Your task to perform on an android device: Open calendar and show me the second week of next month Image 0: 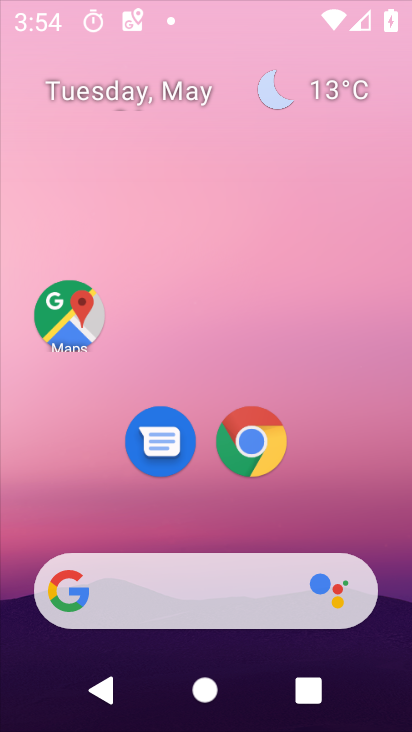
Step 0: press home button
Your task to perform on an android device: Open calendar and show me the second week of next month Image 1: 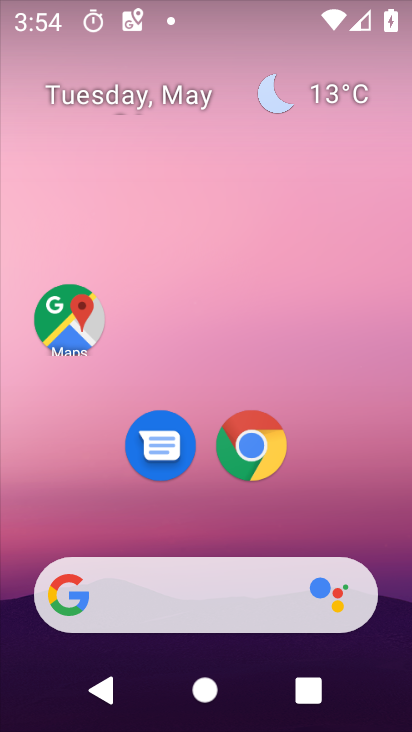
Step 1: click (341, 91)
Your task to perform on an android device: Open calendar and show me the second week of next month Image 2: 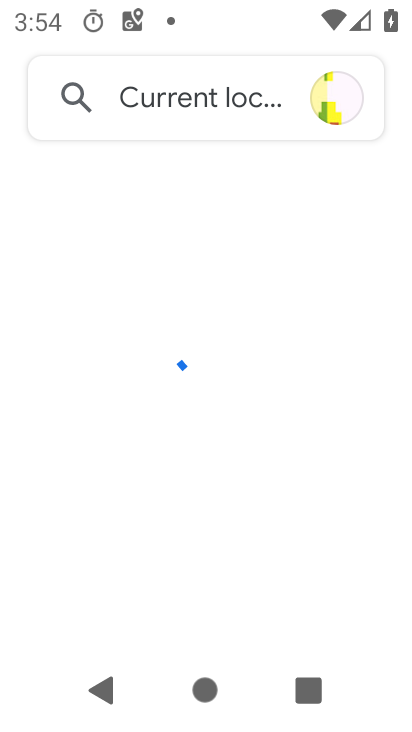
Step 2: press home button
Your task to perform on an android device: Open calendar and show me the second week of next month Image 3: 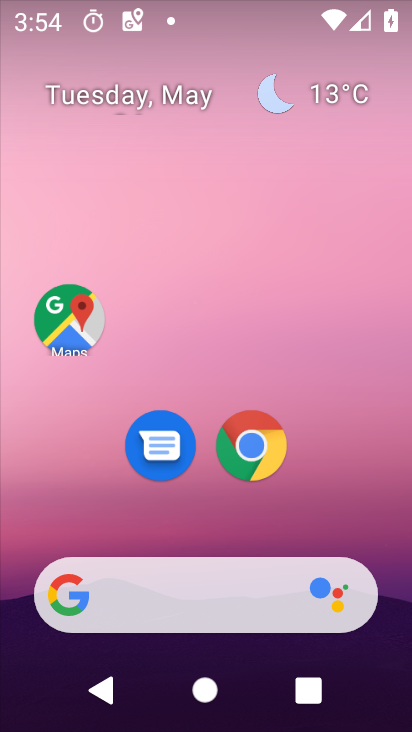
Step 3: drag from (212, 528) to (257, 80)
Your task to perform on an android device: Open calendar and show me the second week of next month Image 4: 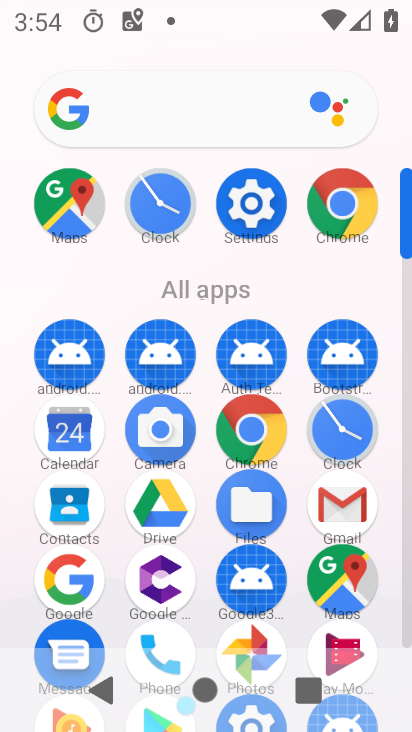
Step 4: click (65, 435)
Your task to perform on an android device: Open calendar and show me the second week of next month Image 5: 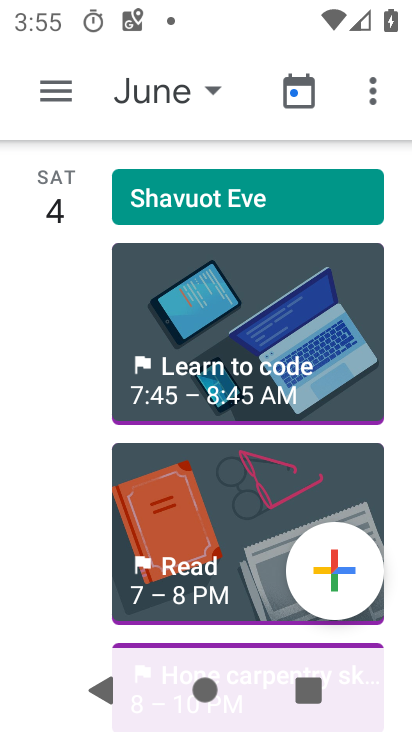
Step 5: click (53, 98)
Your task to perform on an android device: Open calendar and show me the second week of next month Image 6: 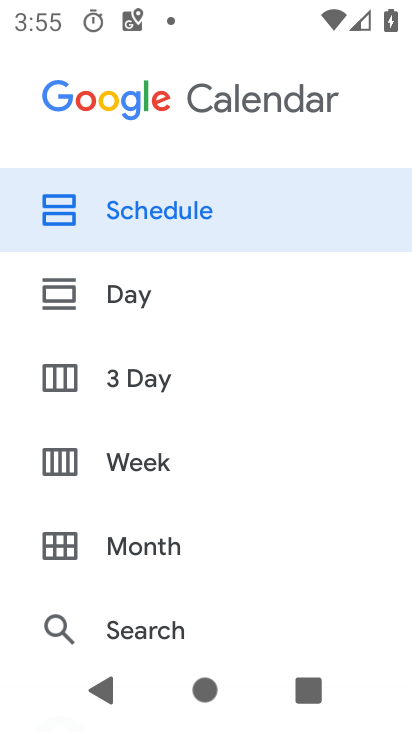
Step 6: click (91, 459)
Your task to perform on an android device: Open calendar and show me the second week of next month Image 7: 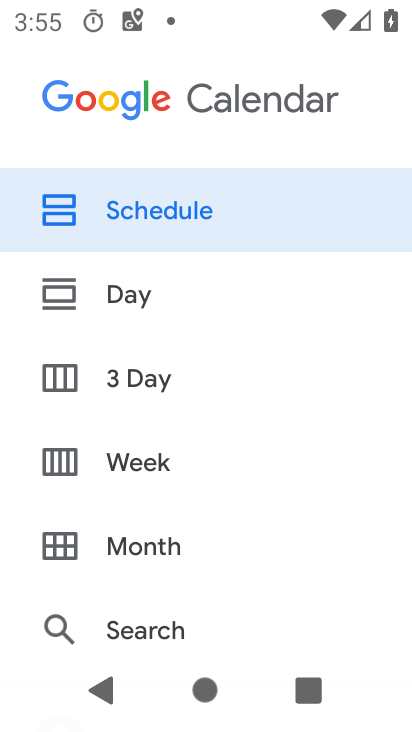
Step 7: click (89, 455)
Your task to perform on an android device: Open calendar and show me the second week of next month Image 8: 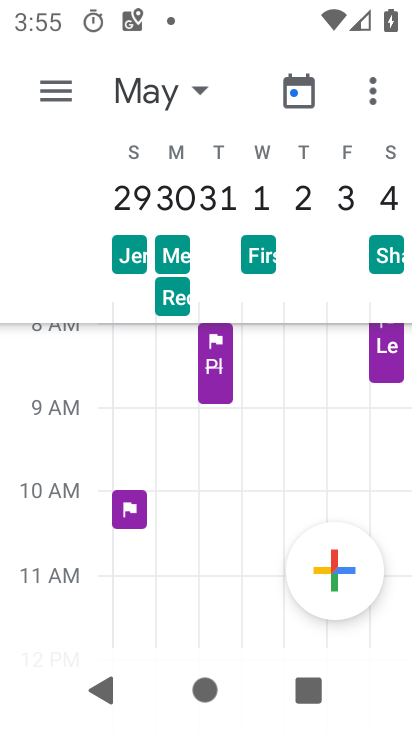
Step 8: drag from (391, 196) to (106, 197)
Your task to perform on an android device: Open calendar and show me the second week of next month Image 9: 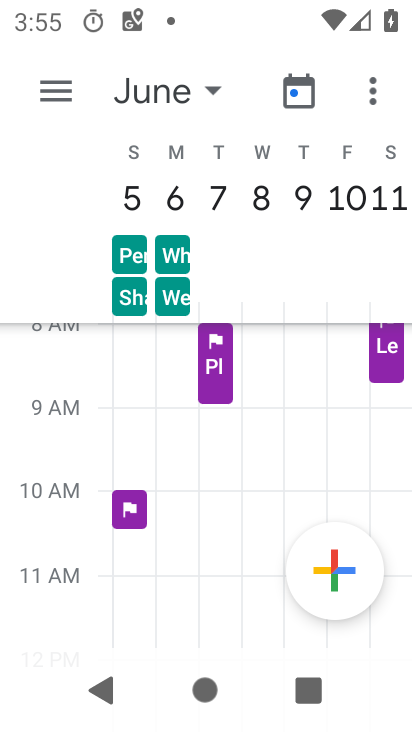
Step 9: click (127, 192)
Your task to perform on an android device: Open calendar and show me the second week of next month Image 10: 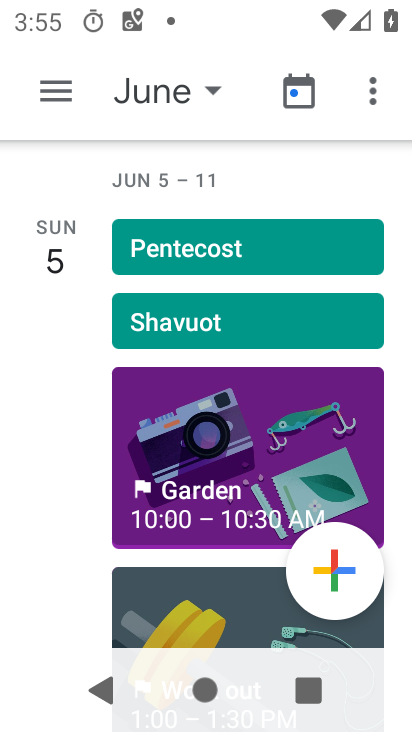
Step 10: task complete